Your task to perform on an android device: open a bookmark in the chrome app Image 0: 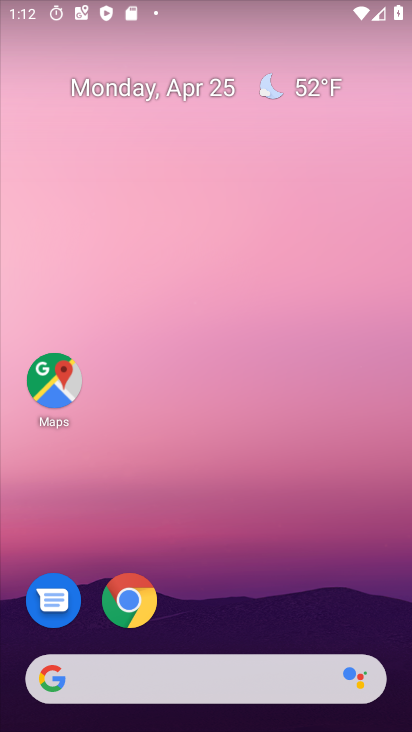
Step 0: drag from (170, 657) to (263, 148)
Your task to perform on an android device: open a bookmark in the chrome app Image 1: 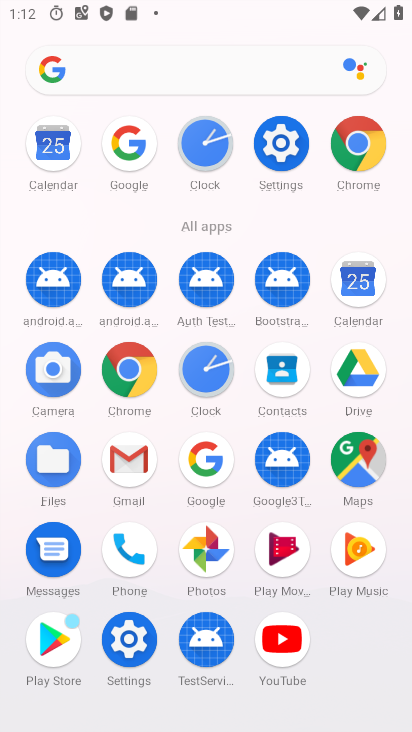
Step 1: click (360, 156)
Your task to perform on an android device: open a bookmark in the chrome app Image 2: 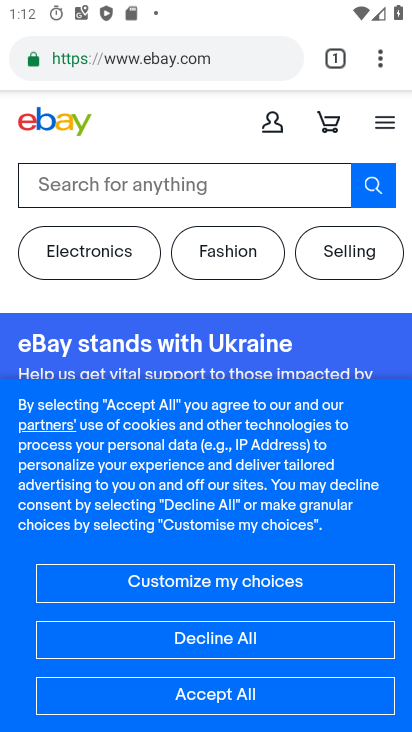
Step 2: drag from (379, 53) to (188, 223)
Your task to perform on an android device: open a bookmark in the chrome app Image 3: 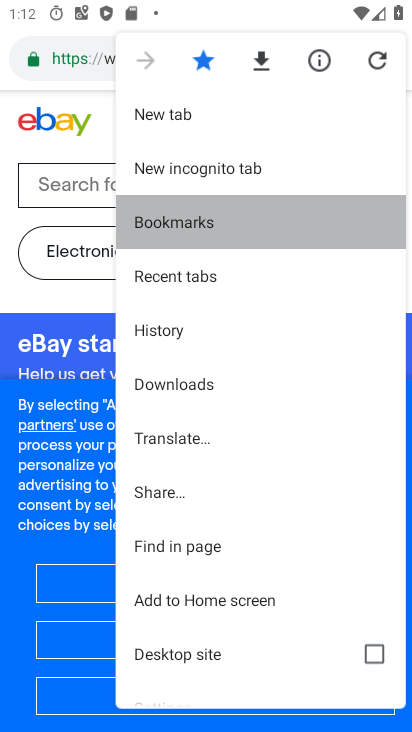
Step 3: click (188, 223)
Your task to perform on an android device: open a bookmark in the chrome app Image 4: 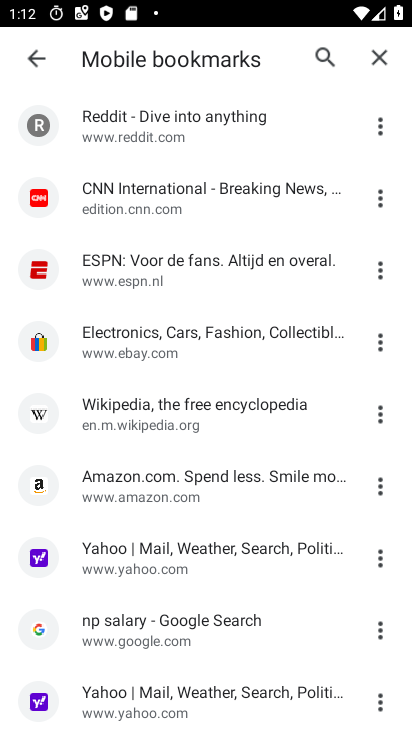
Step 4: task complete